Your task to perform on an android device: Open sound settings Image 0: 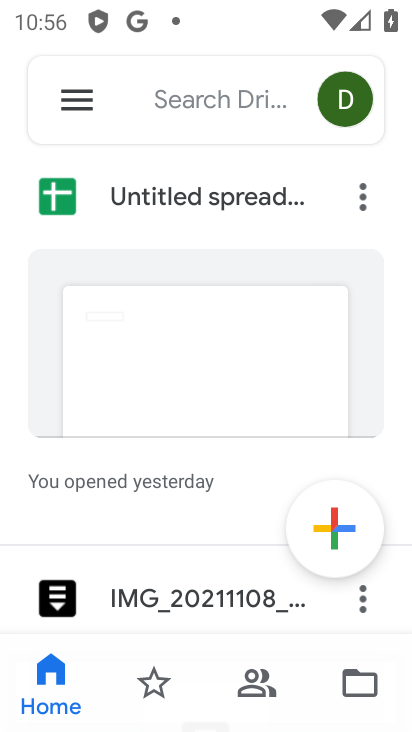
Step 0: press home button
Your task to perform on an android device: Open sound settings Image 1: 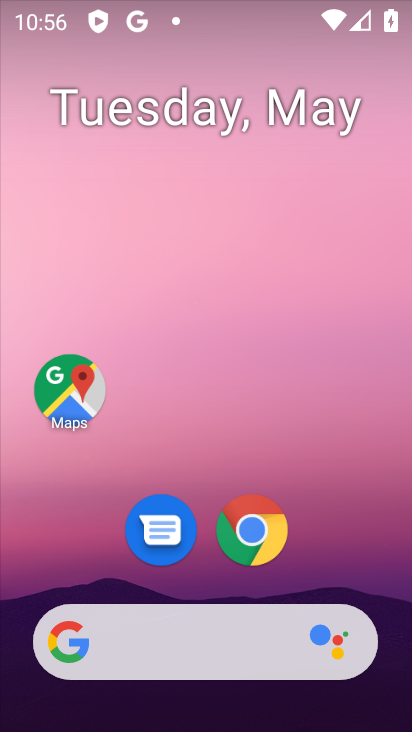
Step 1: drag from (335, 521) to (362, 68)
Your task to perform on an android device: Open sound settings Image 2: 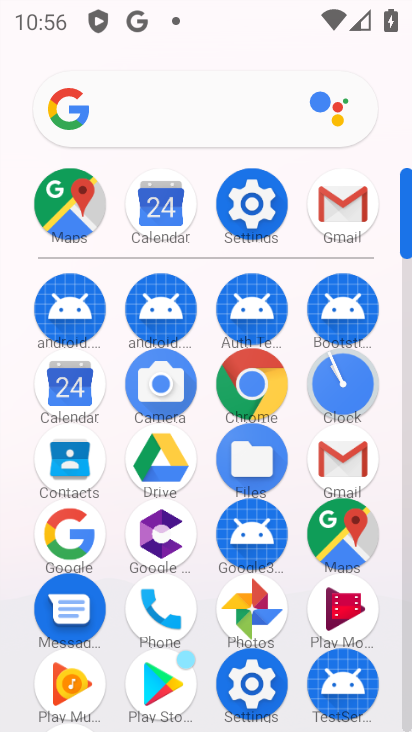
Step 2: click (262, 187)
Your task to perform on an android device: Open sound settings Image 3: 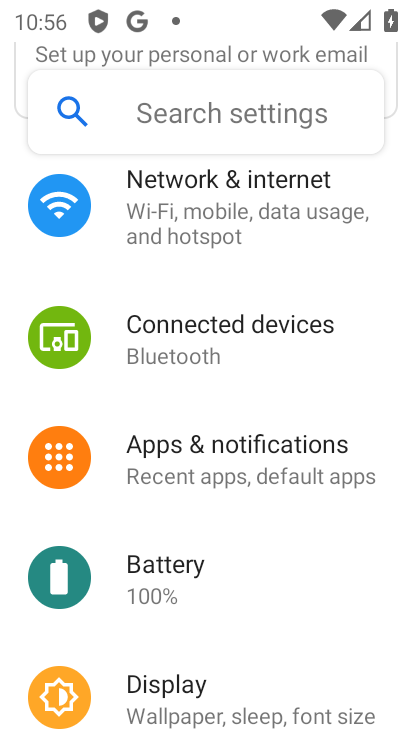
Step 3: drag from (216, 530) to (279, 203)
Your task to perform on an android device: Open sound settings Image 4: 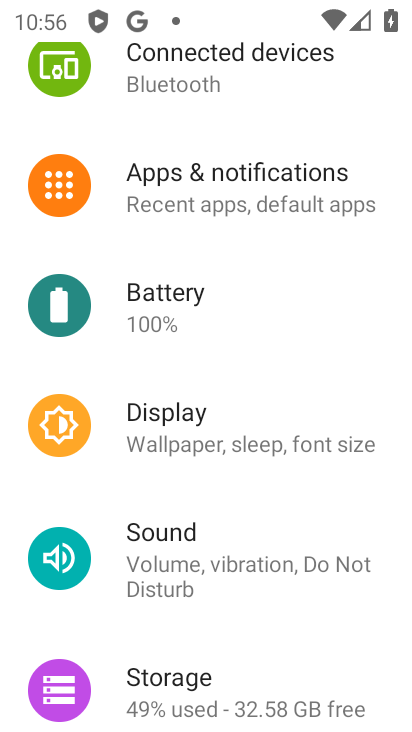
Step 4: click (180, 570)
Your task to perform on an android device: Open sound settings Image 5: 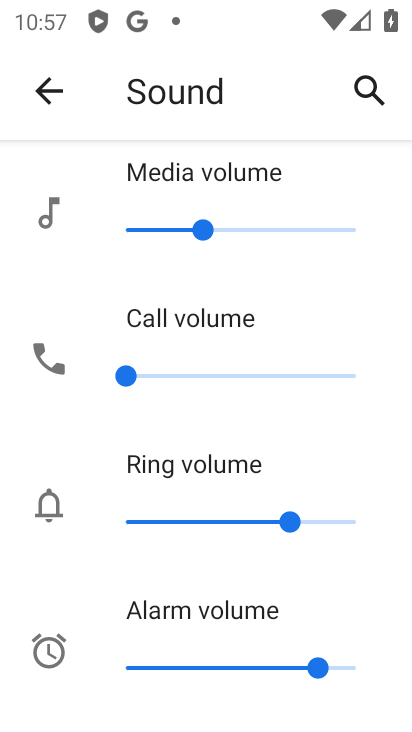
Step 5: task complete